Your task to perform on an android device: turn off airplane mode Image 0: 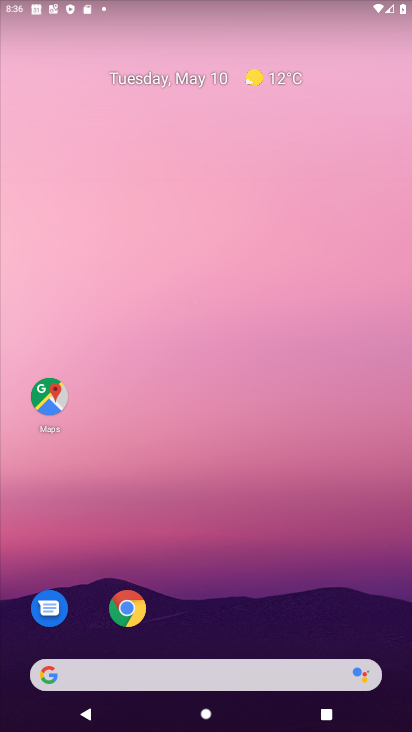
Step 0: drag from (250, 662) to (201, 90)
Your task to perform on an android device: turn off airplane mode Image 1: 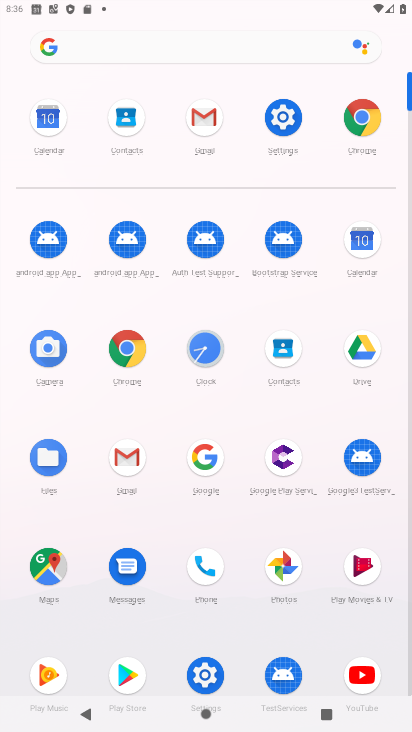
Step 1: click (282, 120)
Your task to perform on an android device: turn off airplane mode Image 2: 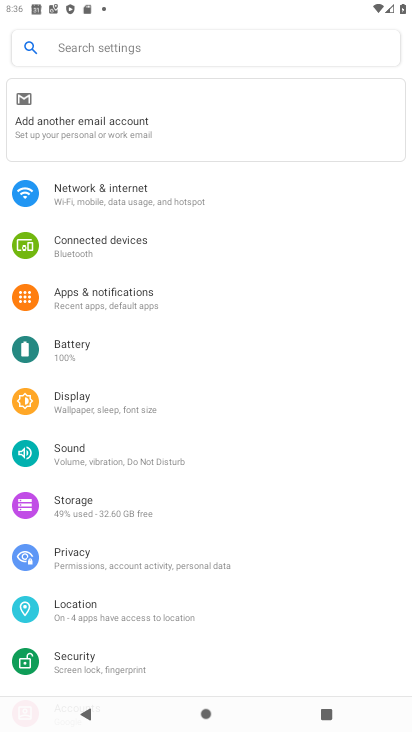
Step 2: click (124, 201)
Your task to perform on an android device: turn off airplane mode Image 3: 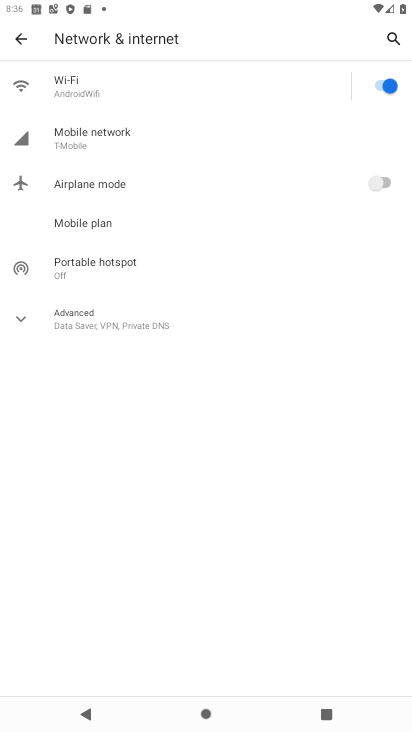
Step 3: task complete